Your task to perform on an android device: change your default location settings in chrome Image 0: 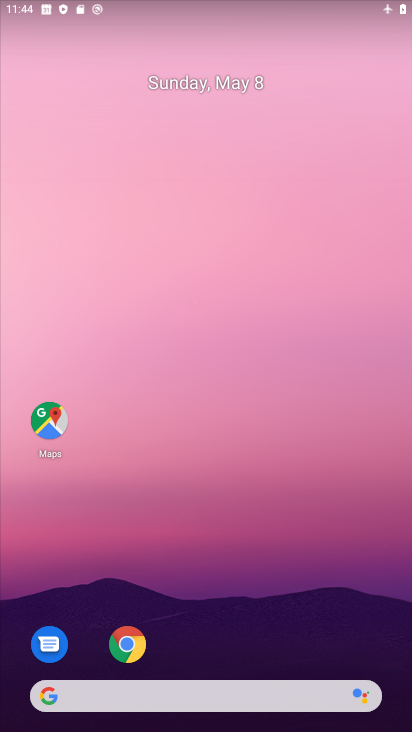
Step 0: drag from (272, 640) to (321, 205)
Your task to perform on an android device: change your default location settings in chrome Image 1: 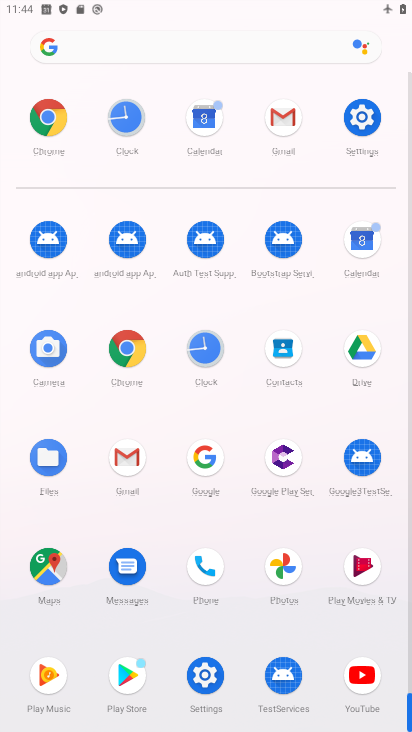
Step 1: click (125, 340)
Your task to perform on an android device: change your default location settings in chrome Image 2: 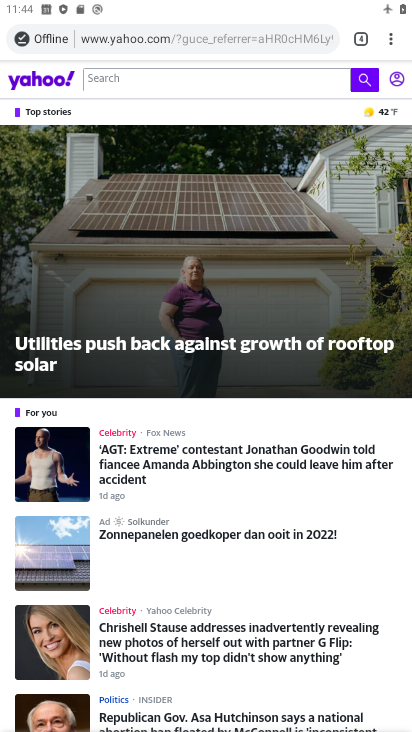
Step 2: click (167, 157)
Your task to perform on an android device: change your default location settings in chrome Image 3: 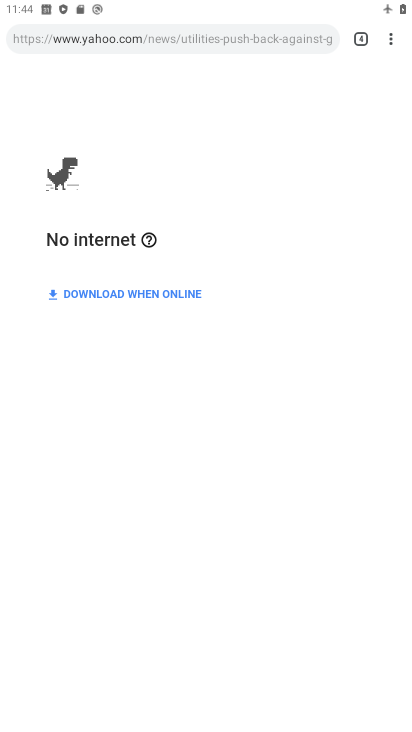
Step 3: press home button
Your task to perform on an android device: change your default location settings in chrome Image 4: 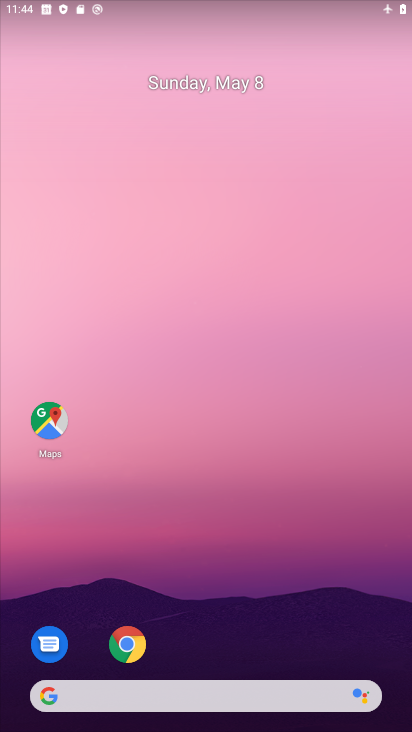
Step 4: drag from (194, 622) to (235, 113)
Your task to perform on an android device: change your default location settings in chrome Image 5: 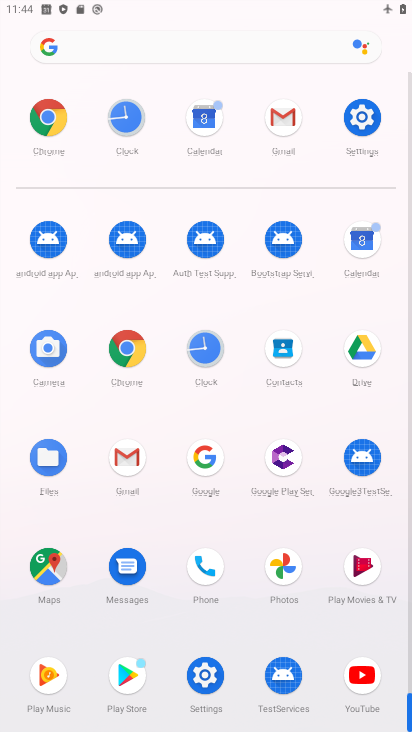
Step 5: click (121, 345)
Your task to perform on an android device: change your default location settings in chrome Image 6: 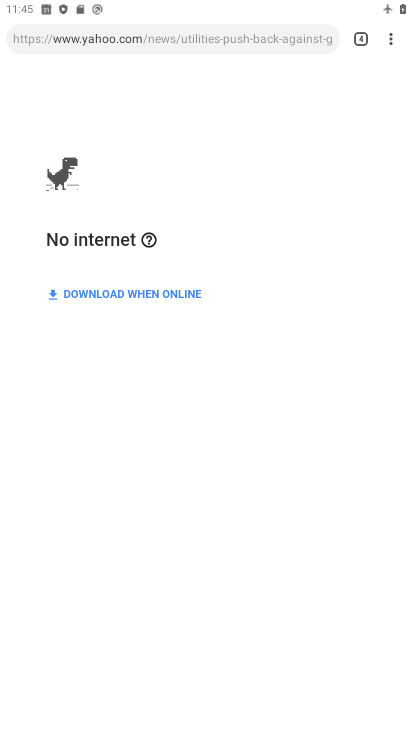
Step 6: click (390, 27)
Your task to perform on an android device: change your default location settings in chrome Image 7: 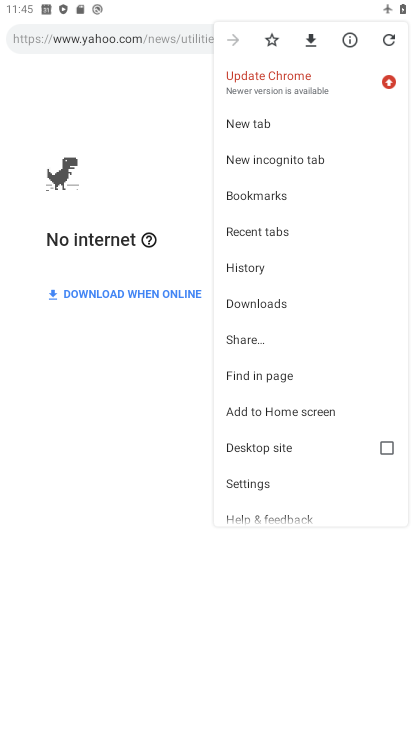
Step 7: click (278, 478)
Your task to perform on an android device: change your default location settings in chrome Image 8: 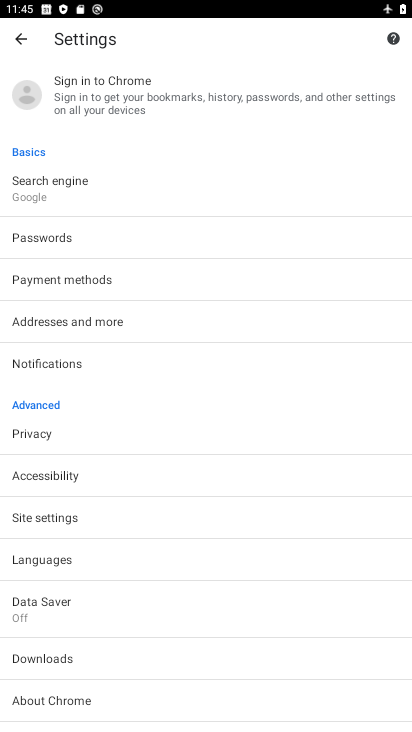
Step 8: drag from (118, 624) to (161, 287)
Your task to perform on an android device: change your default location settings in chrome Image 9: 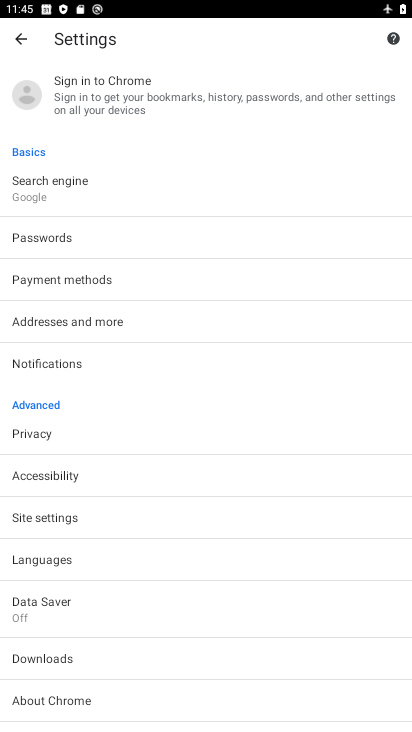
Step 9: drag from (109, 543) to (159, 259)
Your task to perform on an android device: change your default location settings in chrome Image 10: 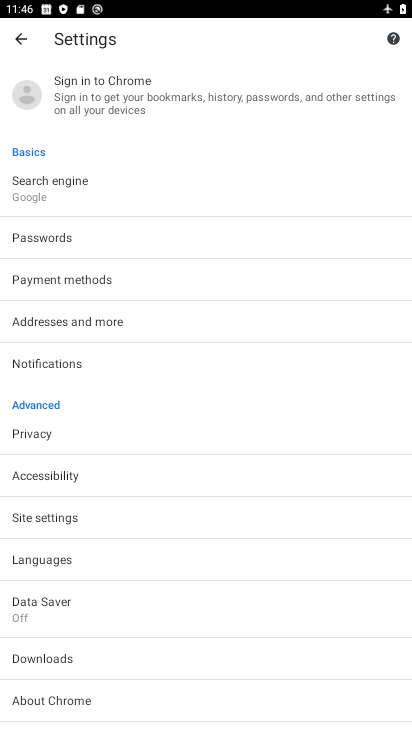
Step 10: click (89, 513)
Your task to perform on an android device: change your default location settings in chrome Image 11: 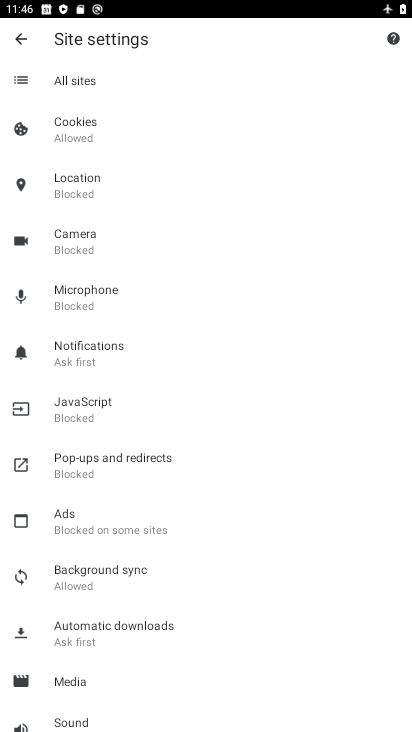
Step 11: click (94, 201)
Your task to perform on an android device: change your default location settings in chrome Image 12: 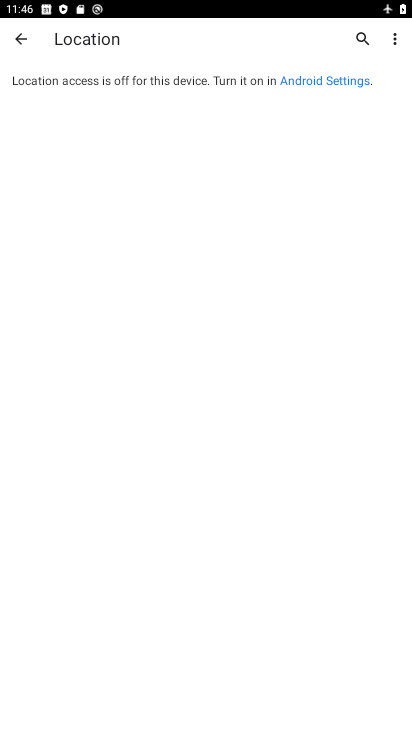
Step 12: task complete